Your task to perform on an android device: toggle show notifications on the lock screen Image 0: 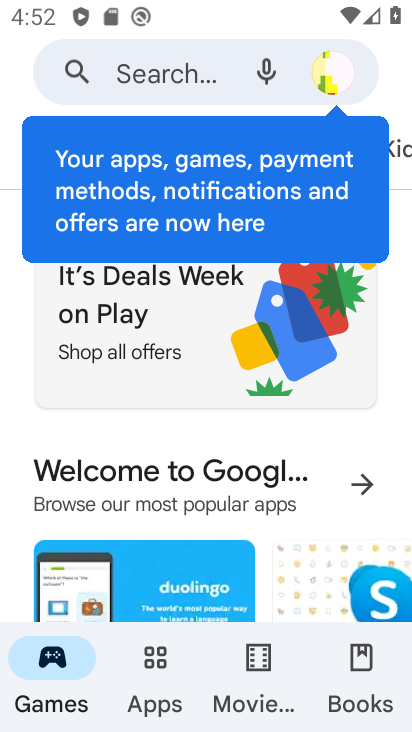
Step 0: press back button
Your task to perform on an android device: toggle show notifications on the lock screen Image 1: 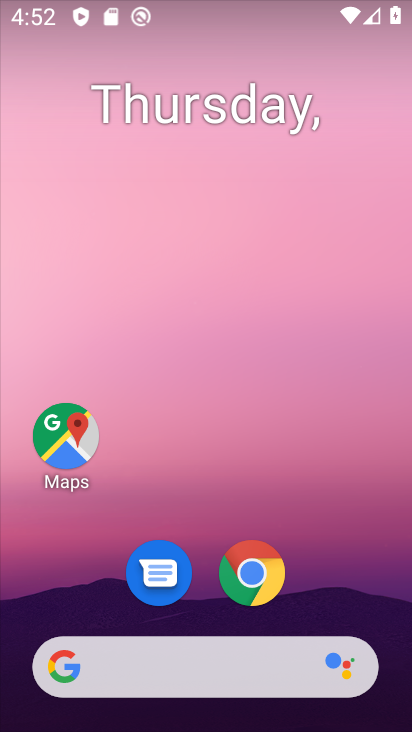
Step 1: drag from (328, 533) to (160, 34)
Your task to perform on an android device: toggle show notifications on the lock screen Image 2: 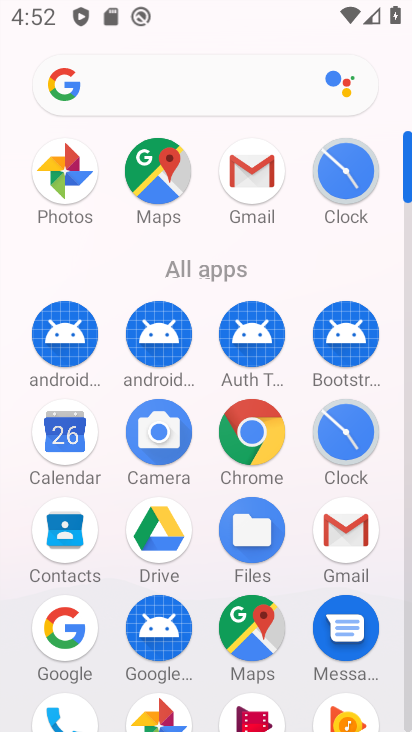
Step 2: drag from (6, 518) to (7, 263)
Your task to perform on an android device: toggle show notifications on the lock screen Image 3: 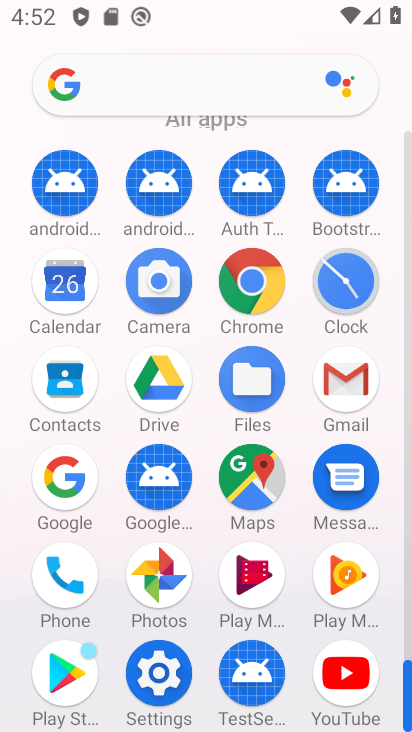
Step 3: drag from (12, 611) to (0, 367)
Your task to perform on an android device: toggle show notifications on the lock screen Image 4: 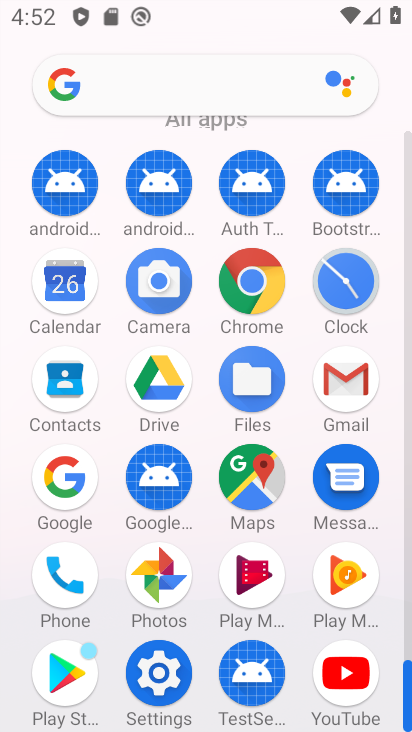
Step 4: click (153, 669)
Your task to perform on an android device: toggle show notifications on the lock screen Image 5: 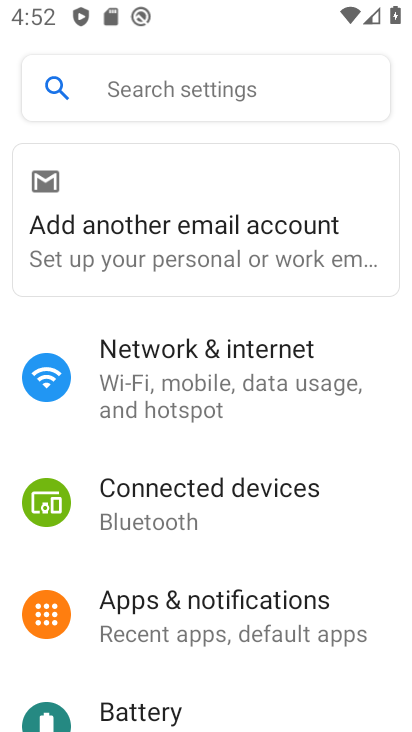
Step 5: click (234, 601)
Your task to perform on an android device: toggle show notifications on the lock screen Image 6: 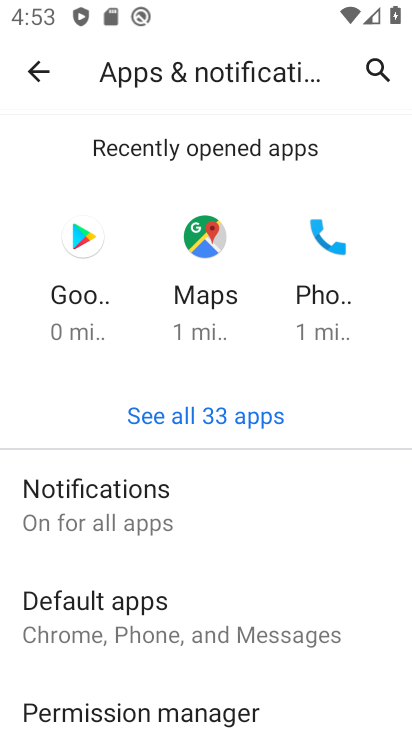
Step 6: click (178, 505)
Your task to perform on an android device: toggle show notifications on the lock screen Image 7: 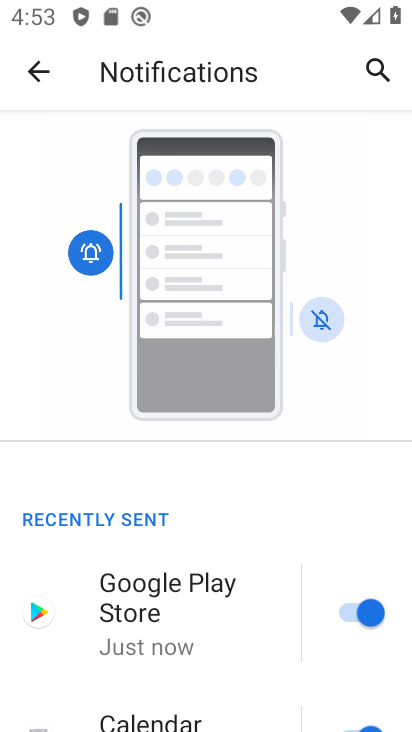
Step 7: drag from (210, 623) to (243, 209)
Your task to perform on an android device: toggle show notifications on the lock screen Image 8: 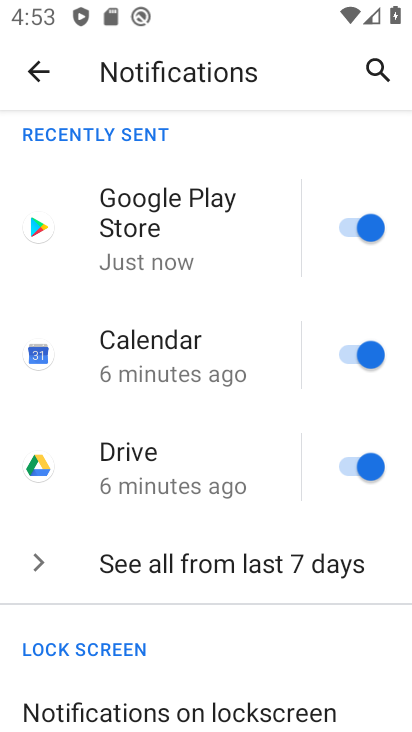
Step 8: drag from (196, 587) to (185, 260)
Your task to perform on an android device: toggle show notifications on the lock screen Image 9: 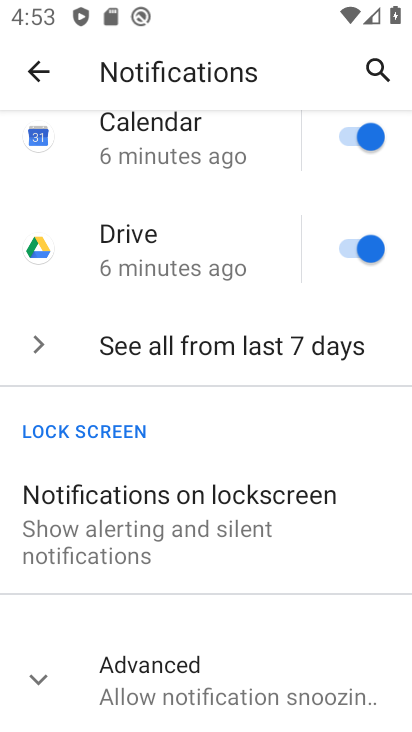
Step 9: click (179, 504)
Your task to perform on an android device: toggle show notifications on the lock screen Image 10: 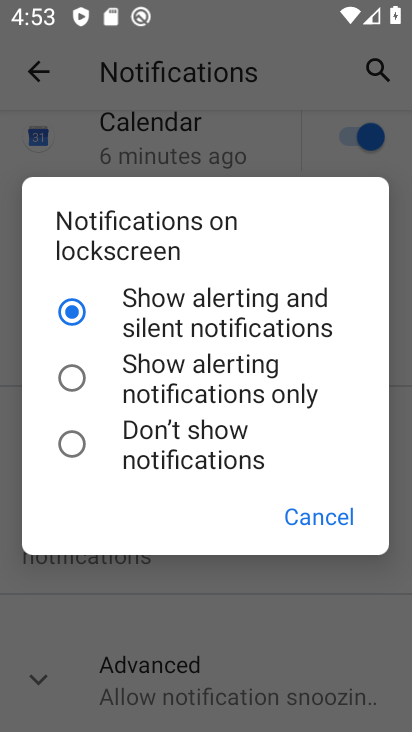
Step 10: click (174, 323)
Your task to perform on an android device: toggle show notifications on the lock screen Image 11: 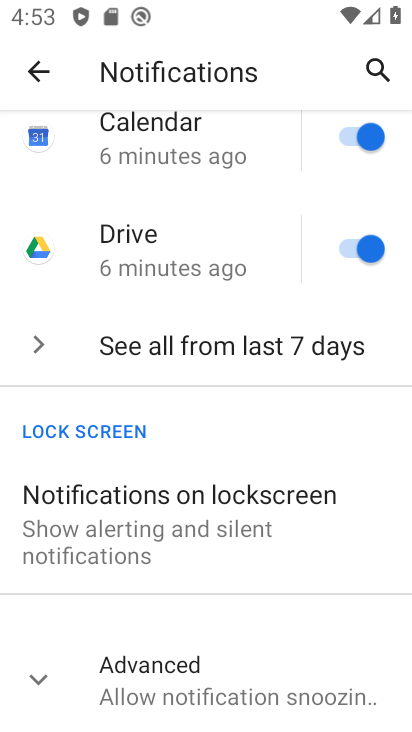
Step 11: task complete